Your task to perform on an android device: toggle notification dots Image 0: 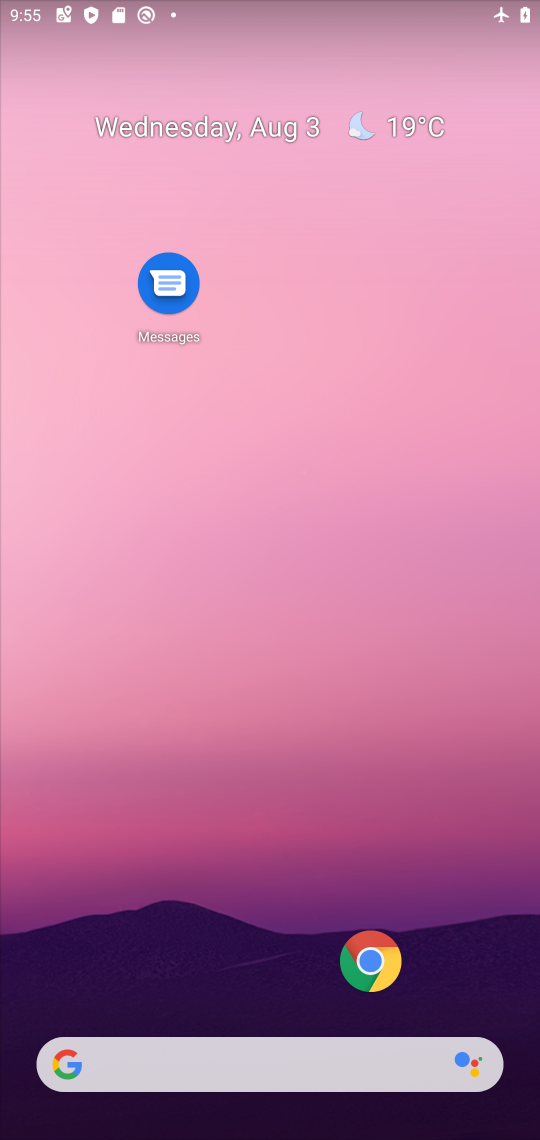
Step 0: drag from (309, 1020) to (222, 58)
Your task to perform on an android device: toggle notification dots Image 1: 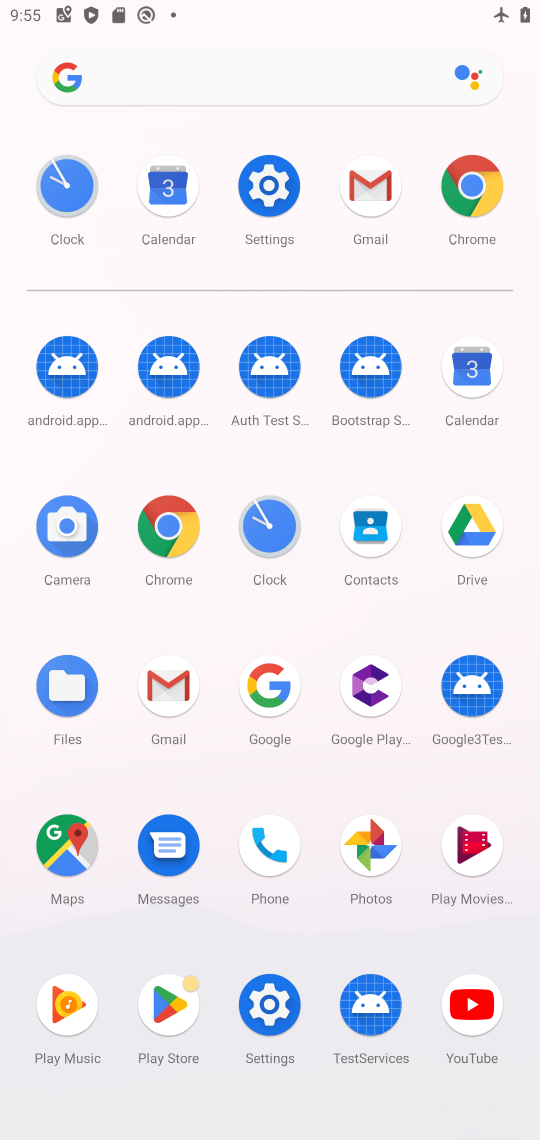
Step 1: click (275, 1012)
Your task to perform on an android device: toggle notification dots Image 2: 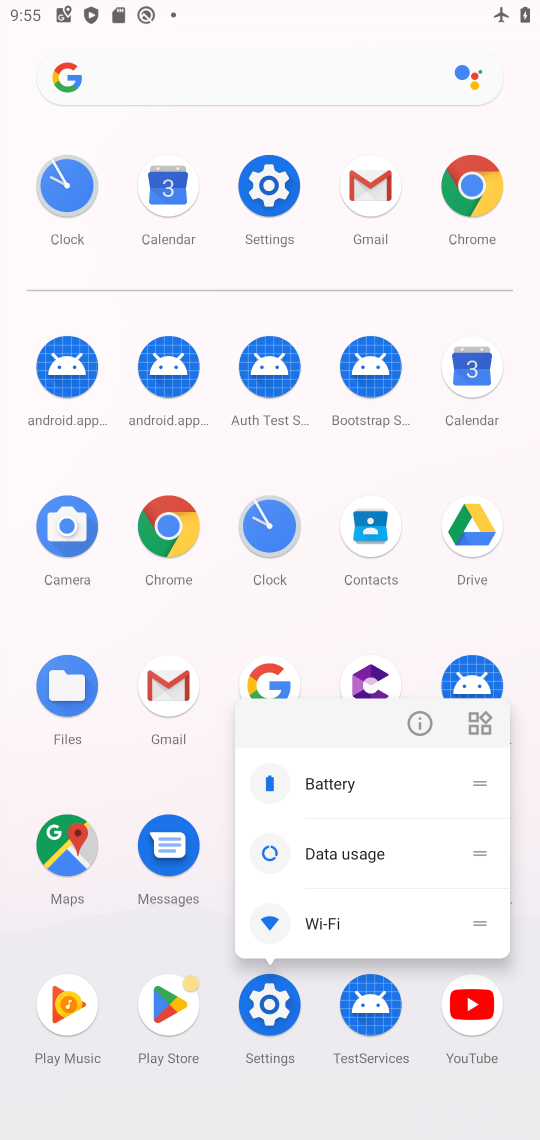
Step 2: click (280, 986)
Your task to perform on an android device: toggle notification dots Image 3: 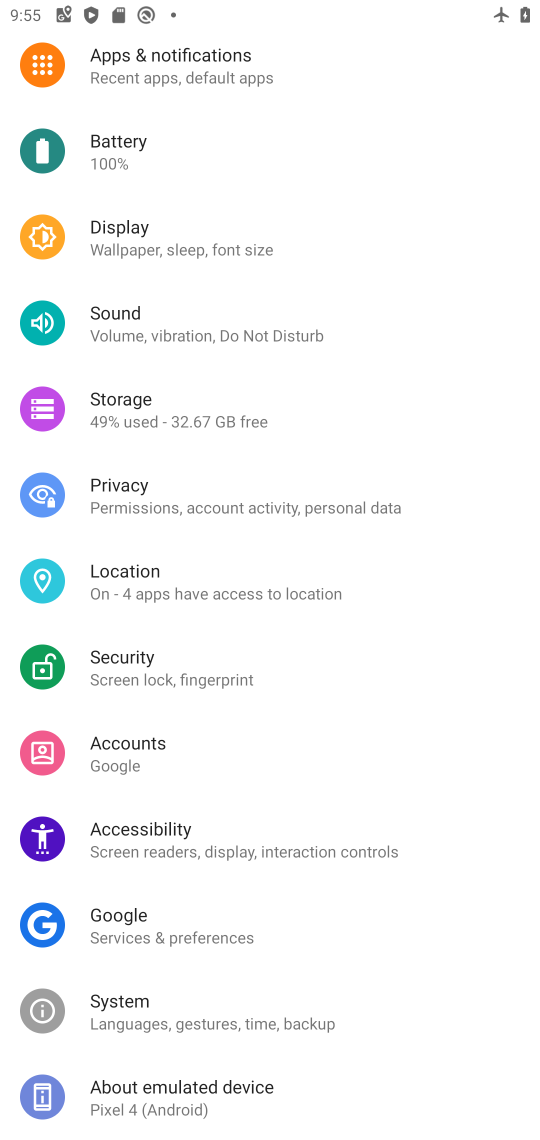
Step 3: click (108, 75)
Your task to perform on an android device: toggle notification dots Image 4: 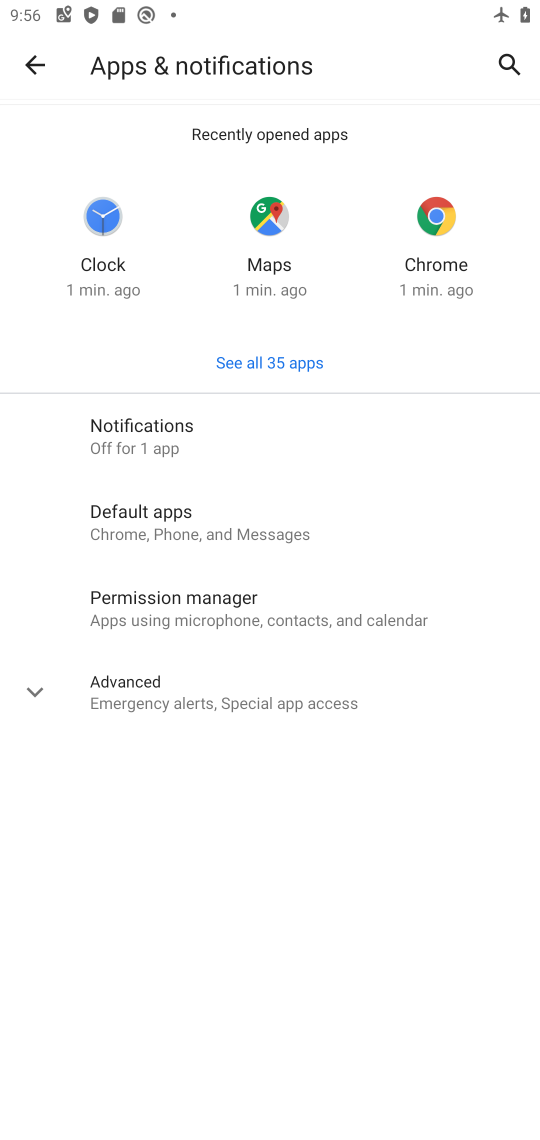
Step 4: click (144, 431)
Your task to perform on an android device: toggle notification dots Image 5: 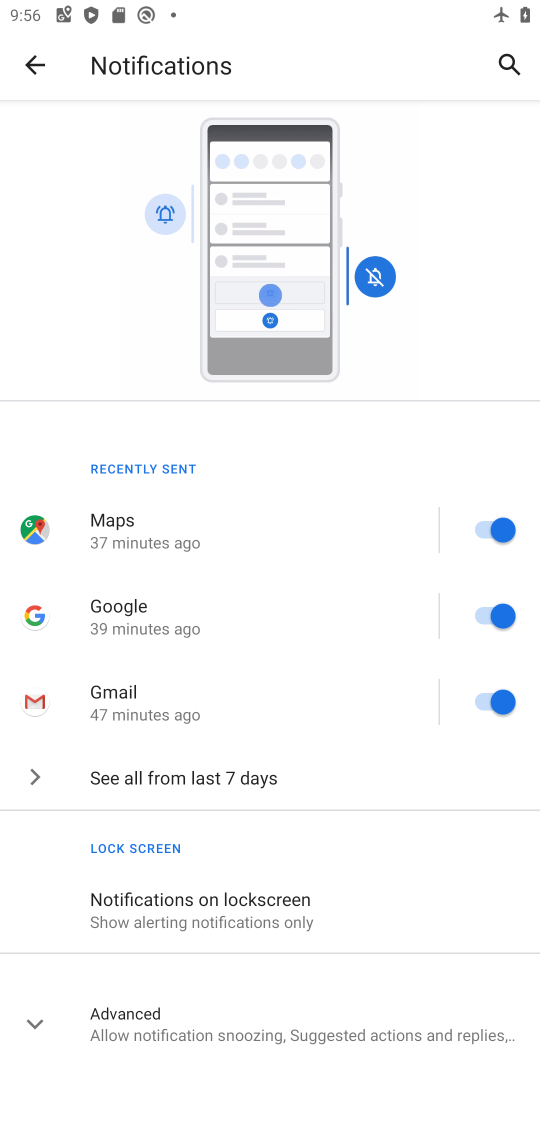
Step 5: click (279, 1021)
Your task to perform on an android device: toggle notification dots Image 6: 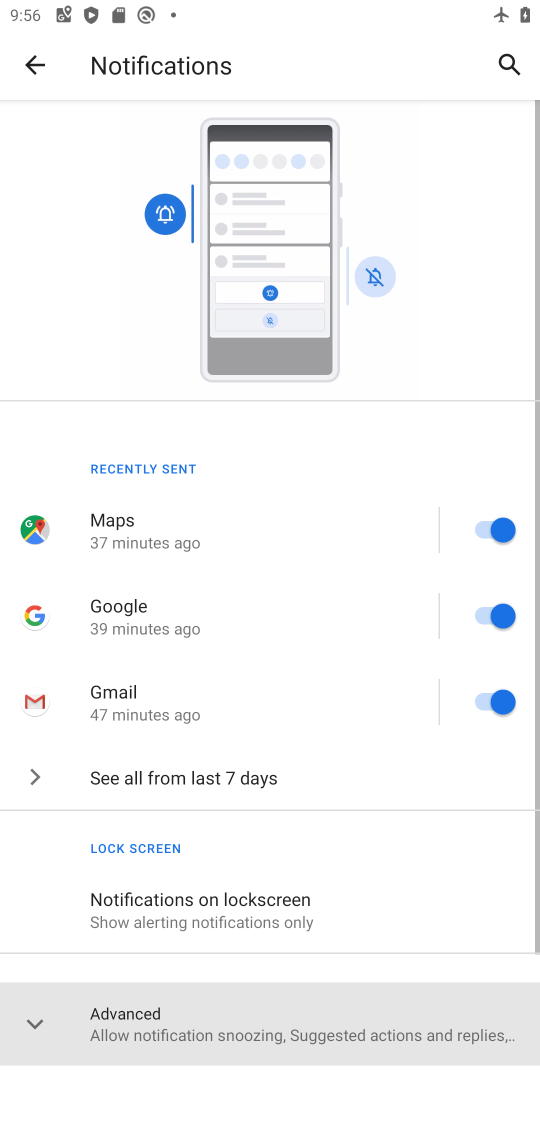
Step 6: drag from (277, 1021) to (282, 418)
Your task to perform on an android device: toggle notification dots Image 7: 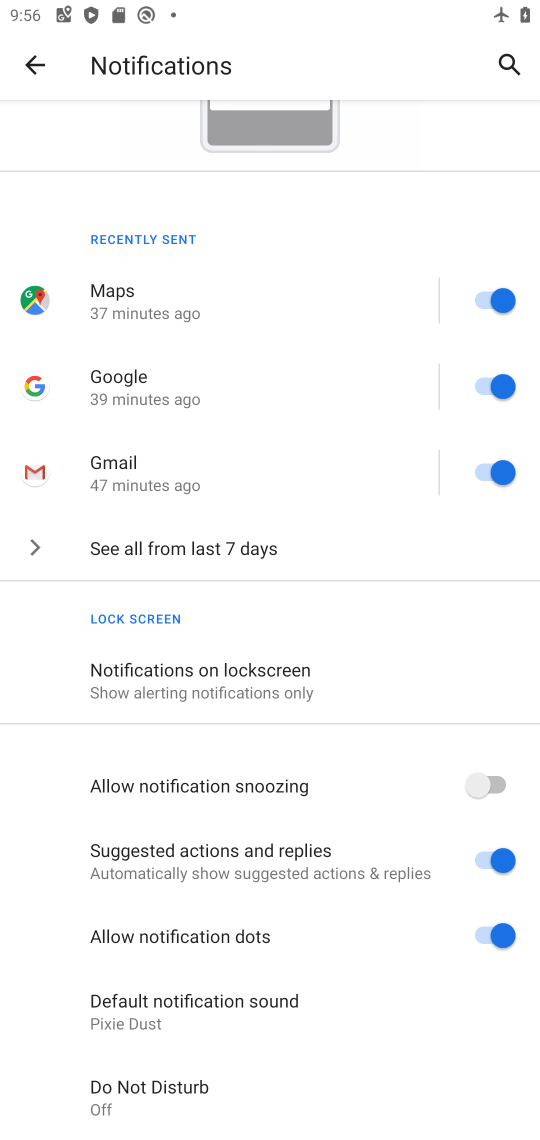
Step 7: click (490, 935)
Your task to perform on an android device: toggle notification dots Image 8: 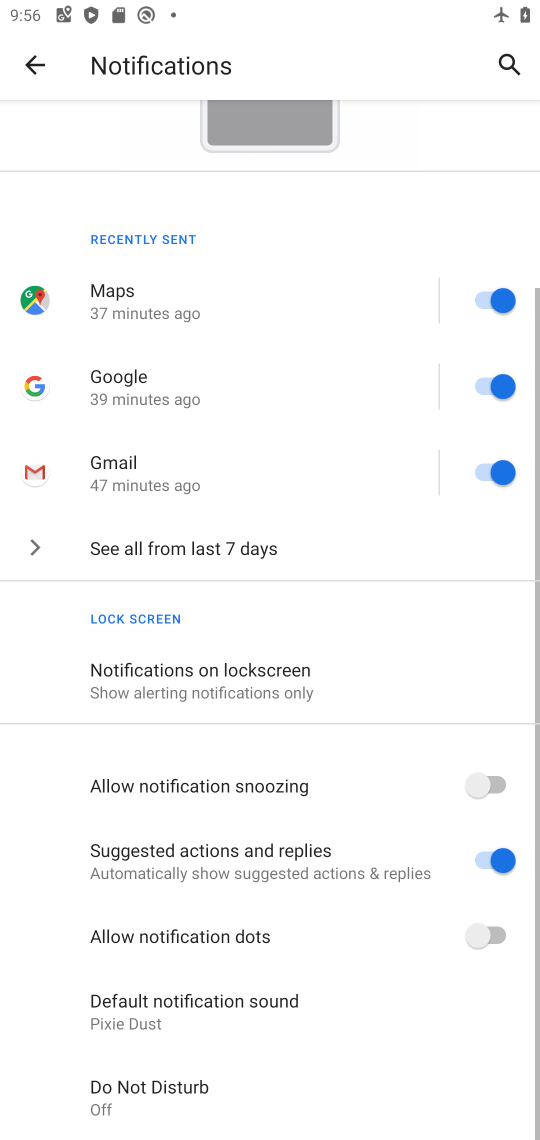
Step 8: task complete